Your task to perform on an android device: Search for pizza restaurants on Maps Image 0: 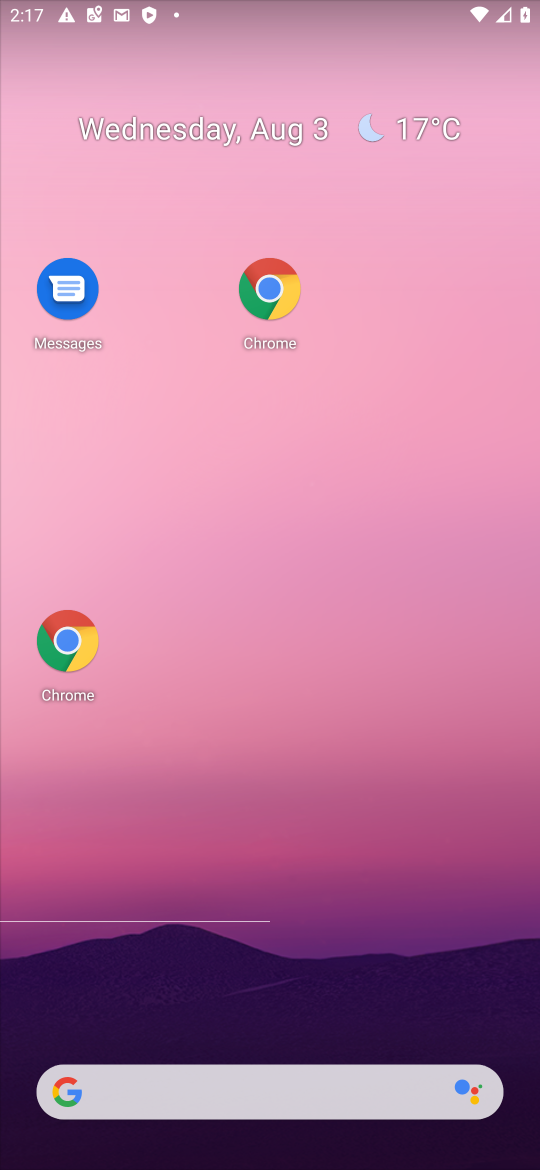
Step 0: drag from (358, 930) to (361, 93)
Your task to perform on an android device: Search for pizza restaurants on Maps Image 1: 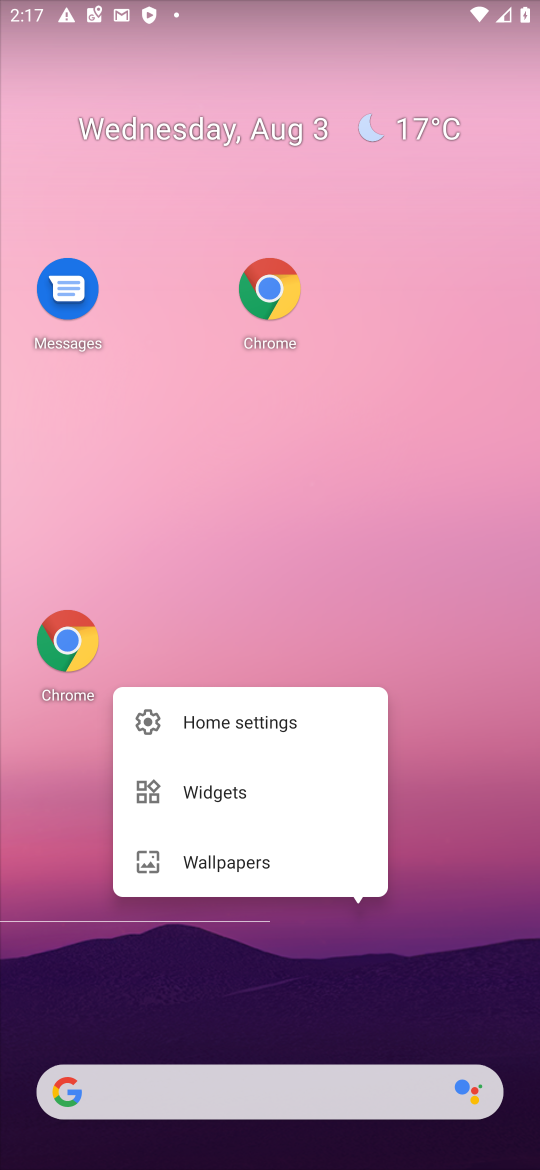
Step 1: click (380, 350)
Your task to perform on an android device: Search for pizza restaurants on Maps Image 2: 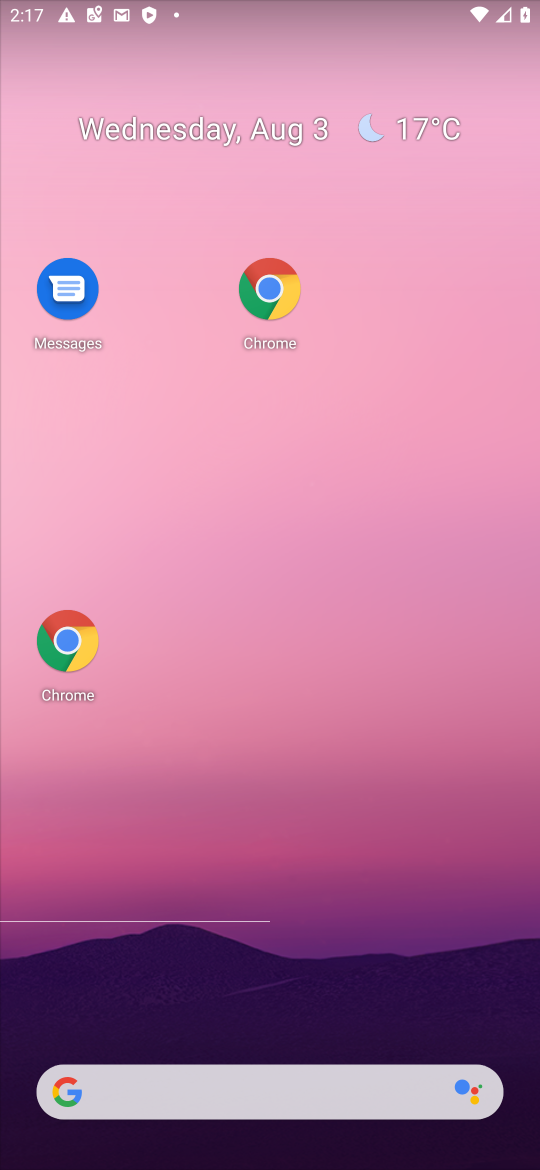
Step 2: drag from (381, 939) to (323, 102)
Your task to perform on an android device: Search for pizza restaurants on Maps Image 3: 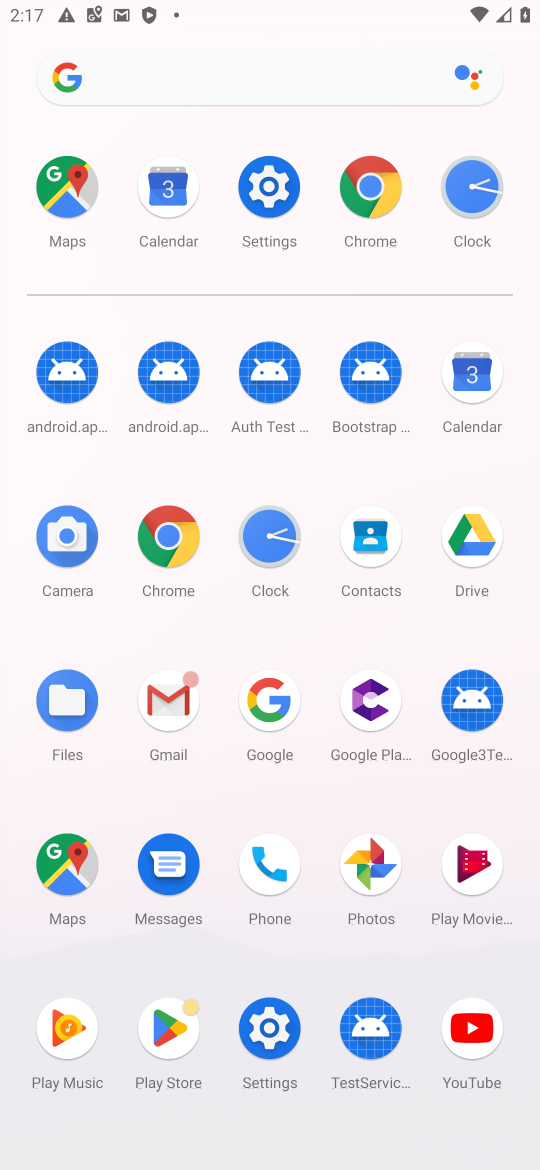
Step 3: click (79, 889)
Your task to perform on an android device: Search for pizza restaurants on Maps Image 4: 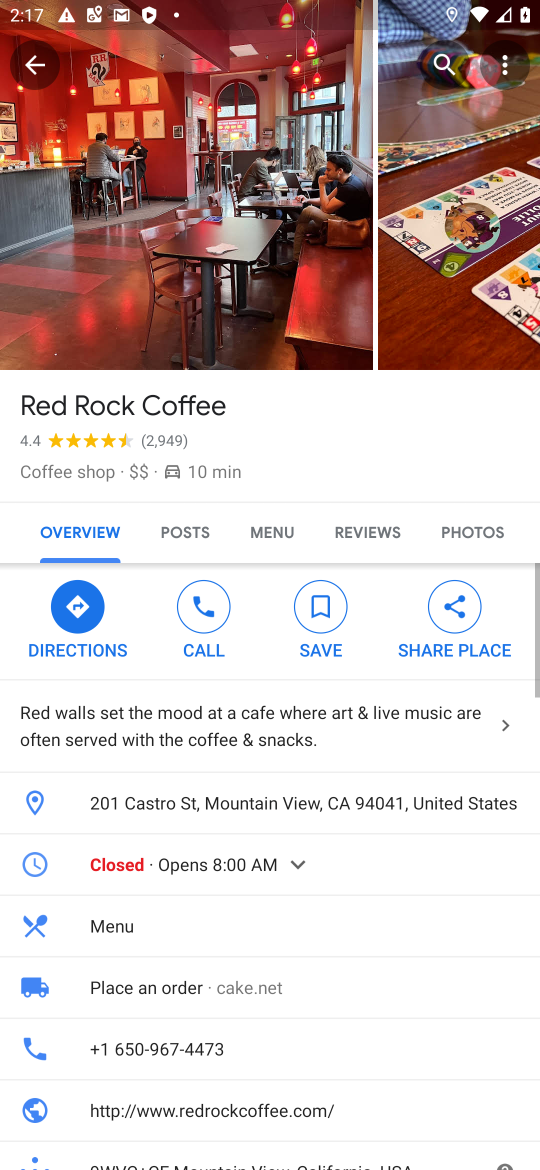
Step 4: click (20, 64)
Your task to perform on an android device: Search for pizza restaurants on Maps Image 5: 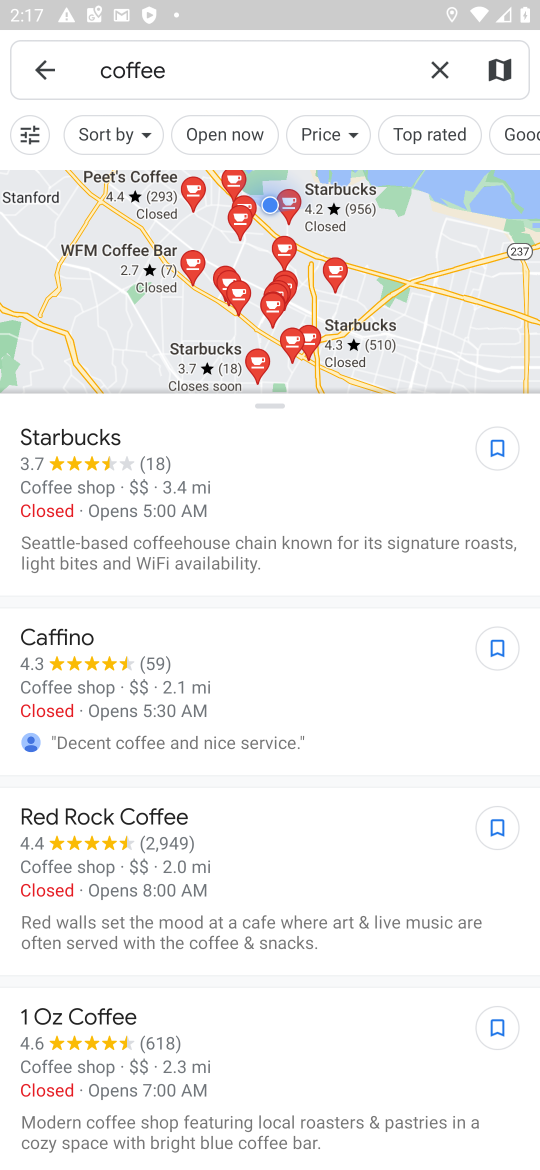
Step 5: click (437, 84)
Your task to perform on an android device: Search for pizza restaurants on Maps Image 6: 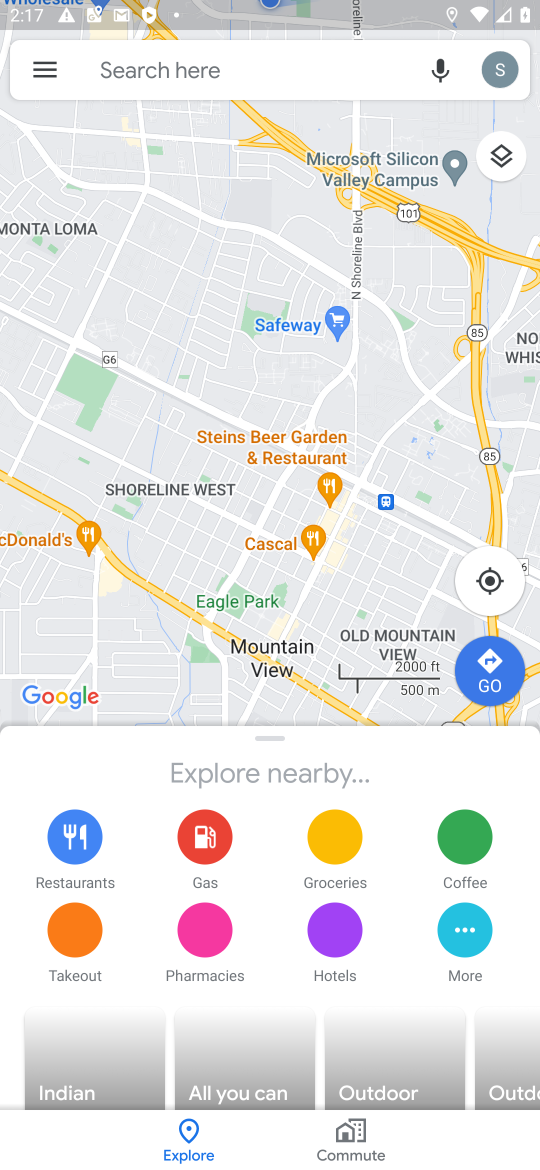
Step 6: click (357, 88)
Your task to perform on an android device: Search for pizza restaurants on Maps Image 7: 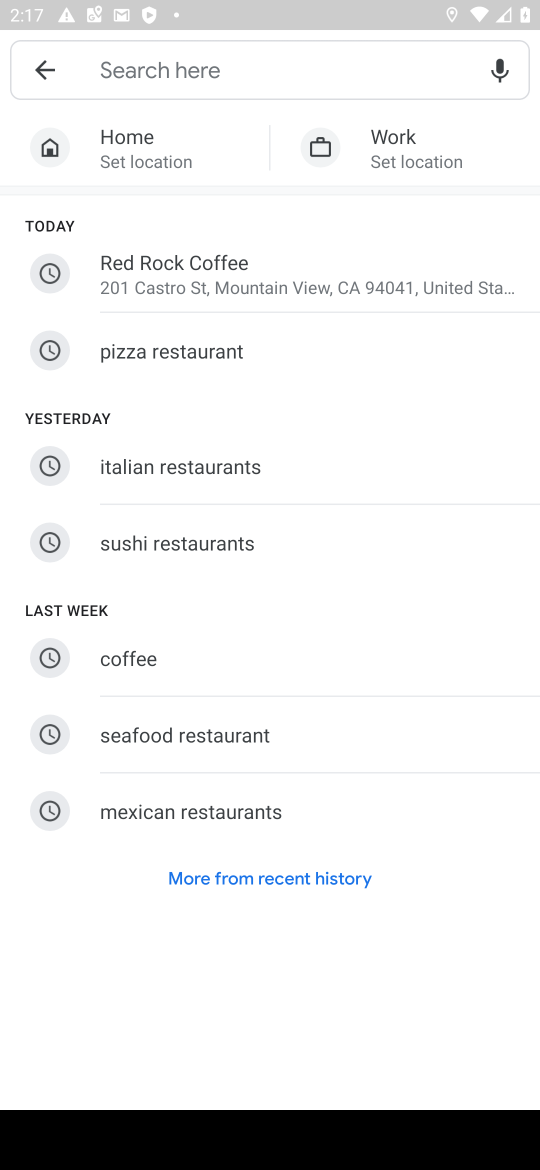
Step 7: click (309, 70)
Your task to perform on an android device: Search for pizza restaurants on Maps Image 8: 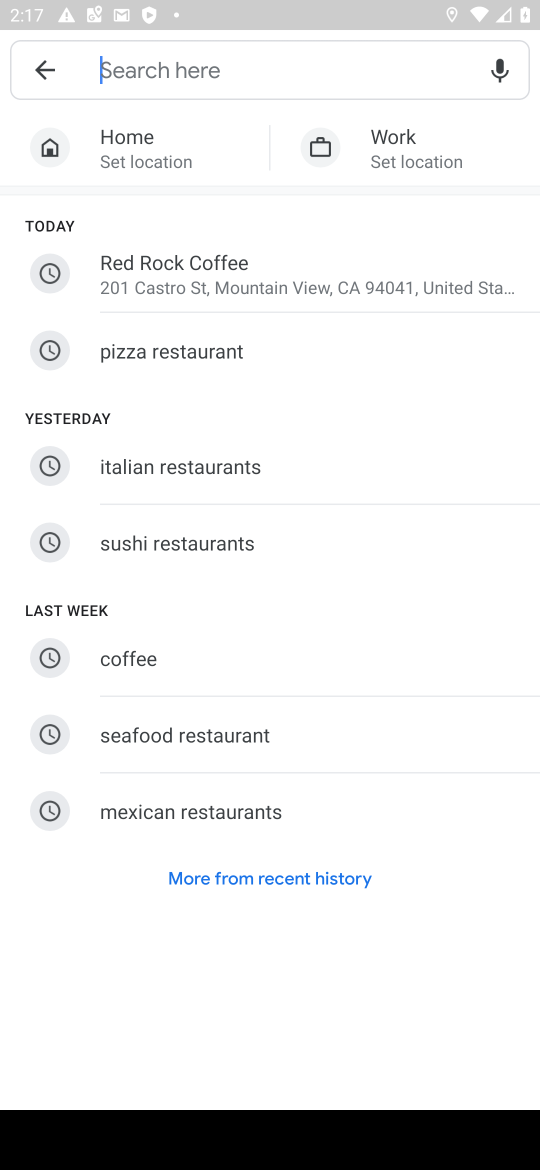
Step 8: click (326, 340)
Your task to perform on an android device: Search for pizza restaurants on Maps Image 9: 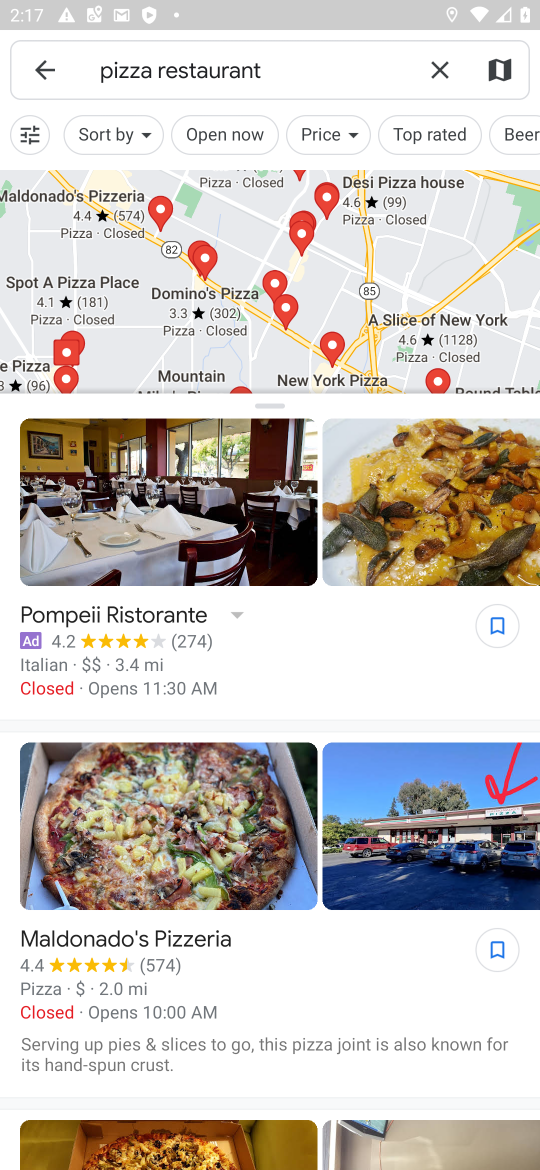
Step 9: task complete